Your task to perform on an android device: toggle sleep mode Image 0: 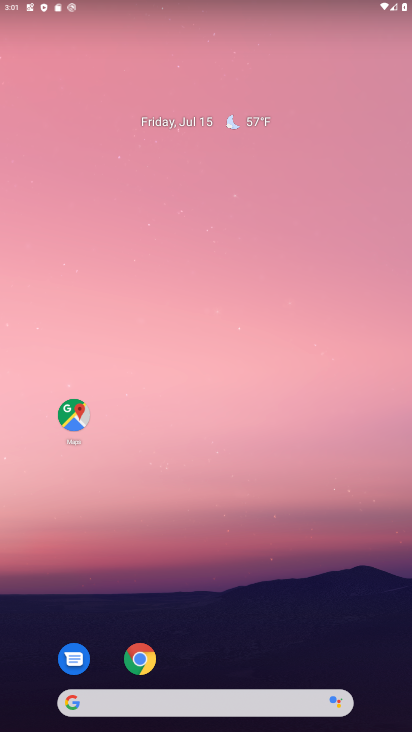
Step 0: drag from (263, 622) to (271, 151)
Your task to perform on an android device: toggle sleep mode Image 1: 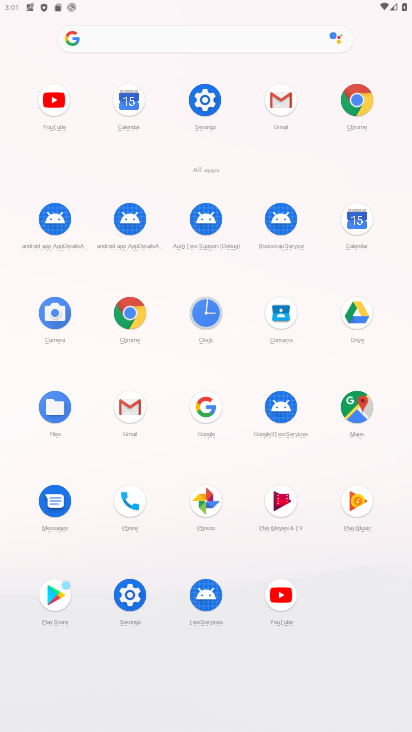
Step 1: click (131, 604)
Your task to perform on an android device: toggle sleep mode Image 2: 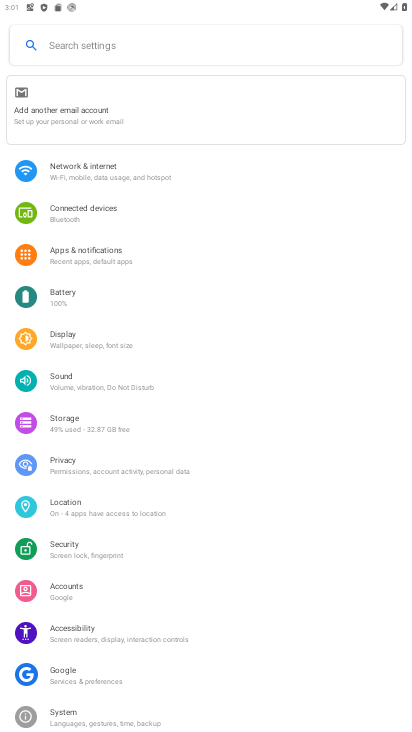
Step 2: click (137, 47)
Your task to perform on an android device: toggle sleep mode Image 3: 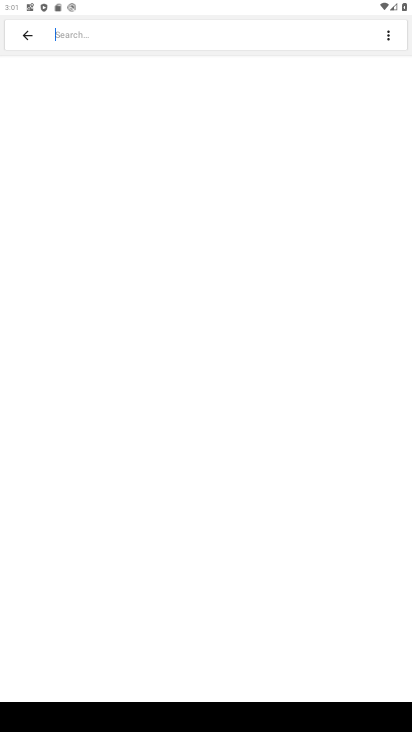
Step 3: type "sleep mode"
Your task to perform on an android device: toggle sleep mode Image 4: 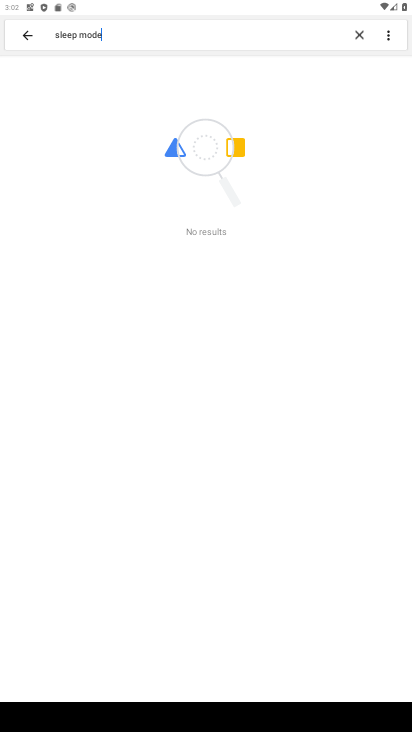
Step 4: task complete